Your task to perform on an android device: remove spam from my inbox in the gmail app Image 0: 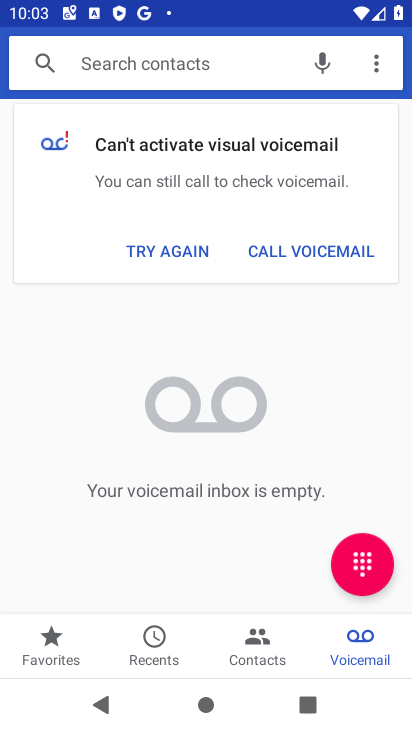
Step 0: press home button
Your task to perform on an android device: remove spam from my inbox in the gmail app Image 1: 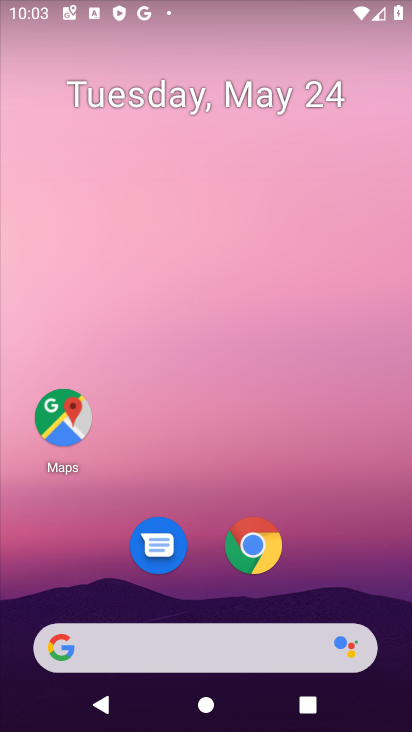
Step 1: drag from (220, 472) to (289, 1)
Your task to perform on an android device: remove spam from my inbox in the gmail app Image 2: 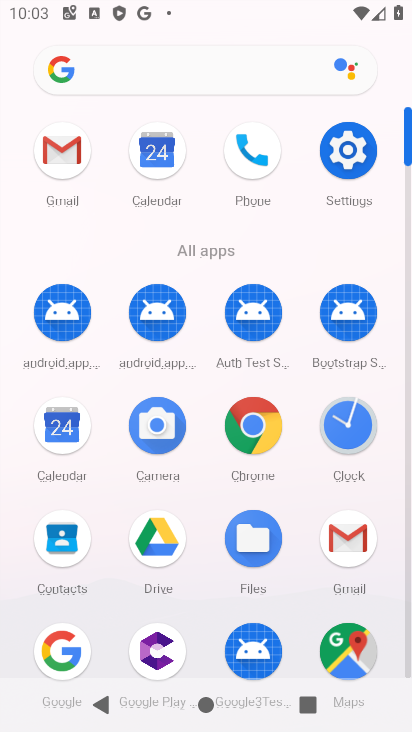
Step 2: click (57, 153)
Your task to perform on an android device: remove spam from my inbox in the gmail app Image 3: 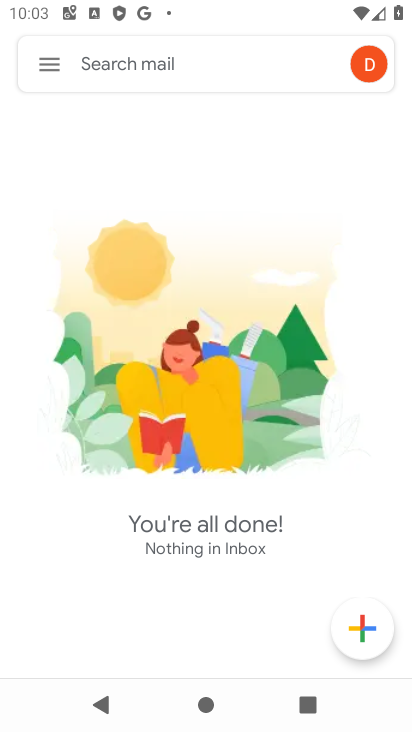
Step 3: click (52, 62)
Your task to perform on an android device: remove spam from my inbox in the gmail app Image 4: 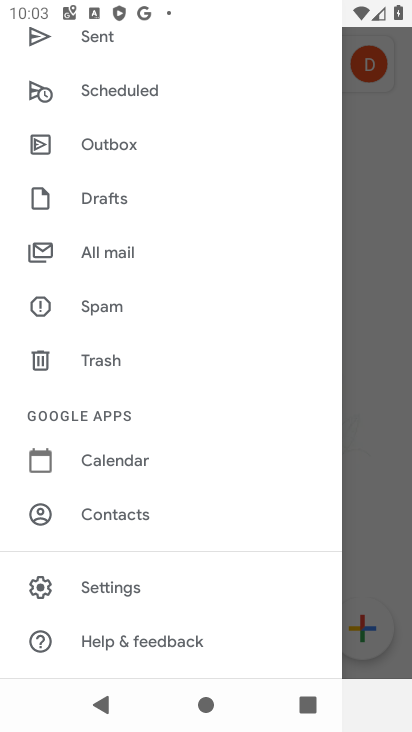
Step 4: click (93, 299)
Your task to perform on an android device: remove spam from my inbox in the gmail app Image 5: 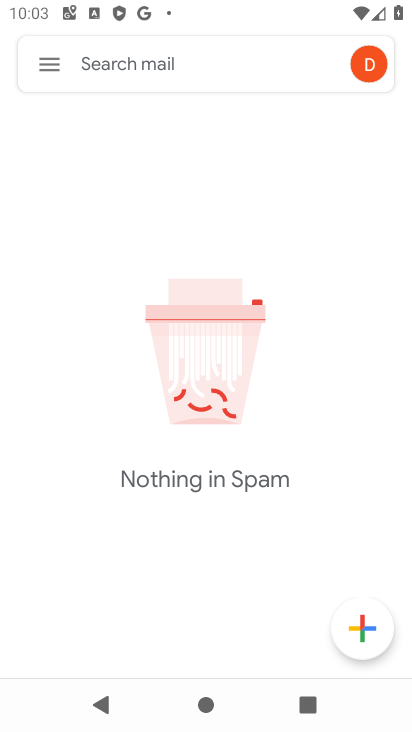
Step 5: task complete